Your task to perform on an android device: toggle data saver in the chrome app Image 0: 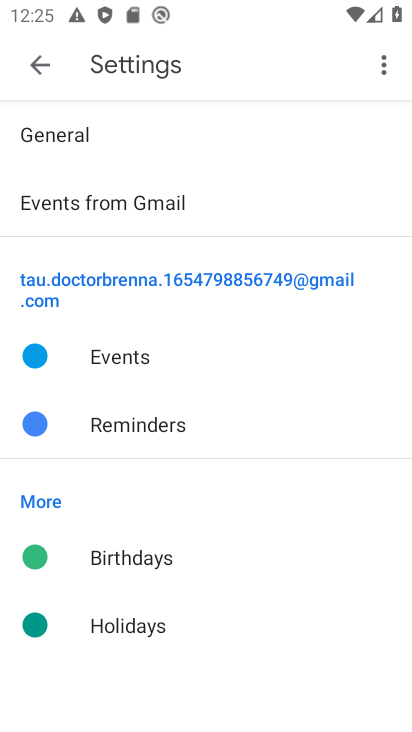
Step 0: press home button
Your task to perform on an android device: toggle data saver in the chrome app Image 1: 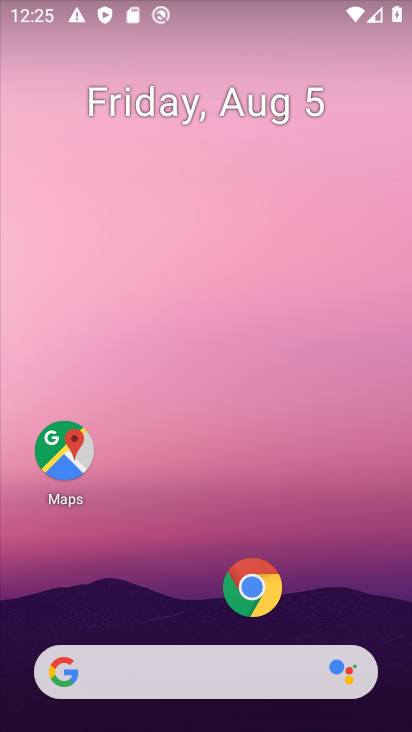
Step 1: click (274, 595)
Your task to perform on an android device: toggle data saver in the chrome app Image 2: 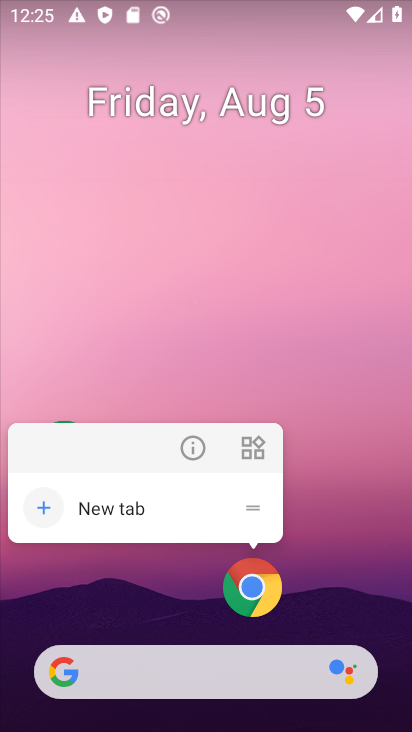
Step 2: click (274, 595)
Your task to perform on an android device: toggle data saver in the chrome app Image 3: 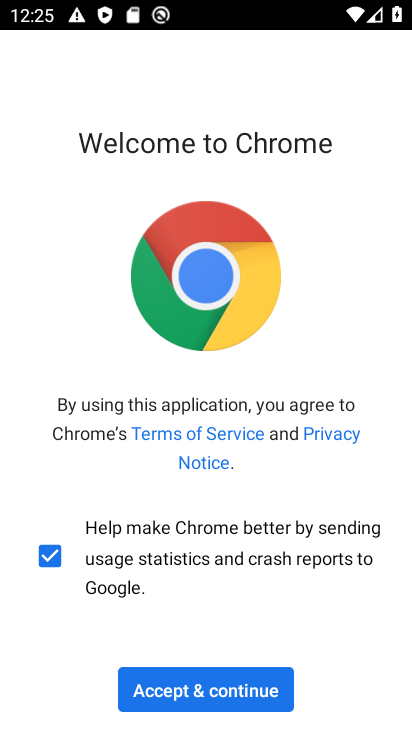
Step 3: click (225, 687)
Your task to perform on an android device: toggle data saver in the chrome app Image 4: 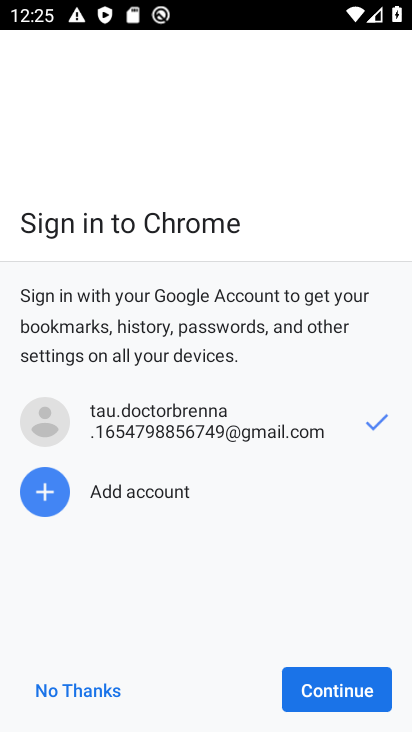
Step 4: click (338, 674)
Your task to perform on an android device: toggle data saver in the chrome app Image 5: 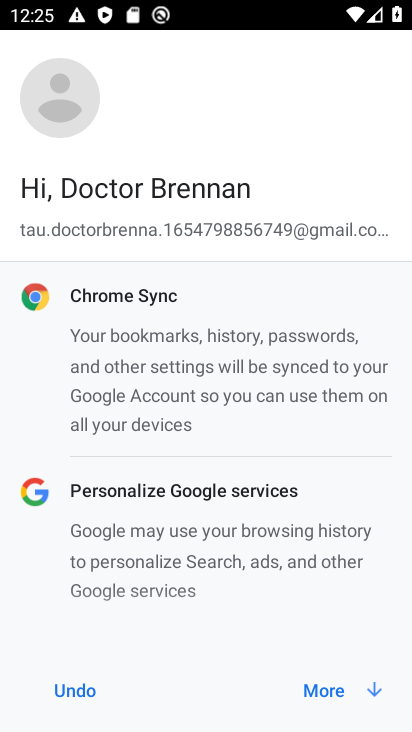
Step 5: click (338, 674)
Your task to perform on an android device: toggle data saver in the chrome app Image 6: 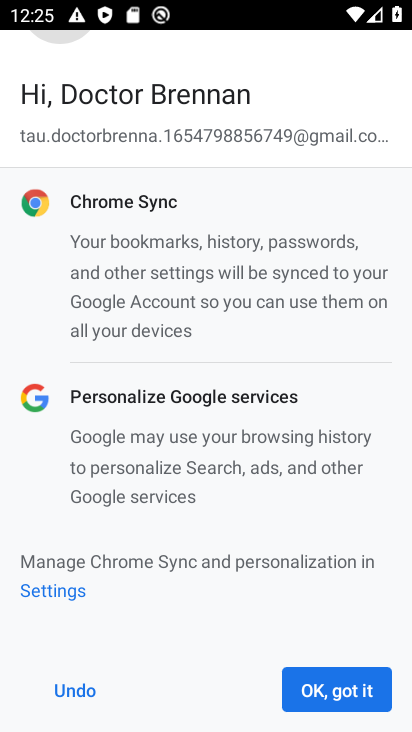
Step 6: click (338, 674)
Your task to perform on an android device: toggle data saver in the chrome app Image 7: 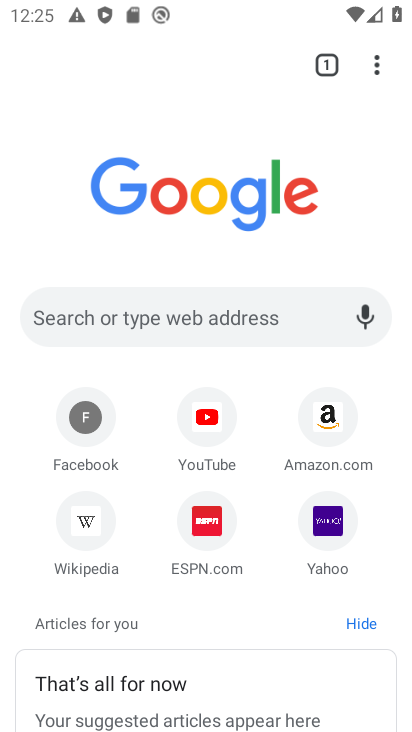
Step 7: click (376, 67)
Your task to perform on an android device: toggle data saver in the chrome app Image 8: 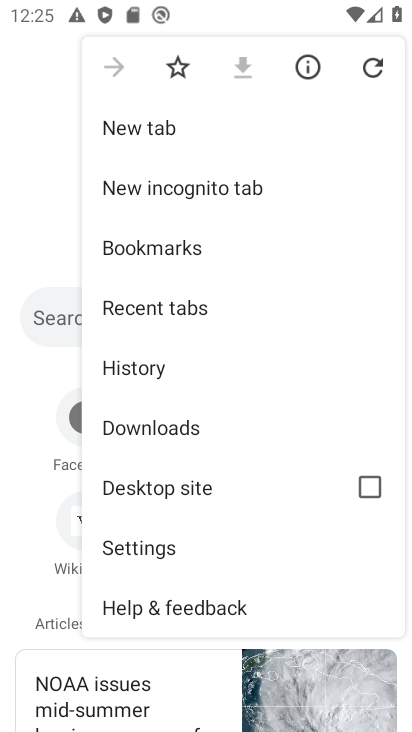
Step 8: click (188, 553)
Your task to perform on an android device: toggle data saver in the chrome app Image 9: 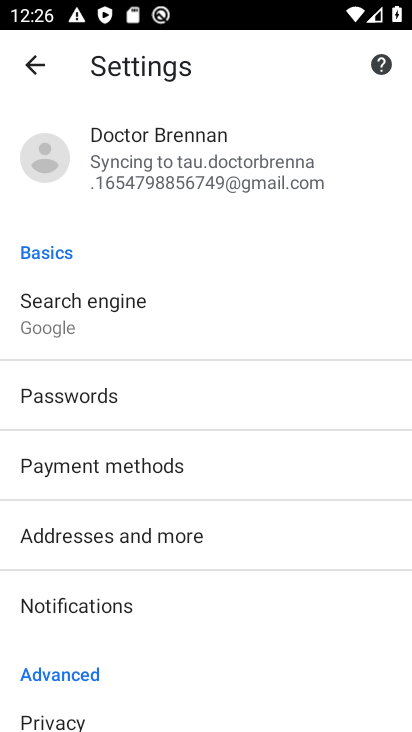
Step 9: drag from (221, 695) to (391, 14)
Your task to perform on an android device: toggle data saver in the chrome app Image 10: 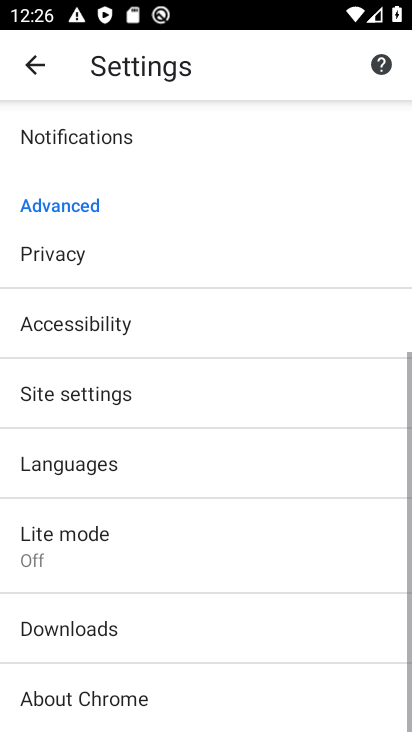
Step 10: drag from (162, 621) to (258, 57)
Your task to perform on an android device: toggle data saver in the chrome app Image 11: 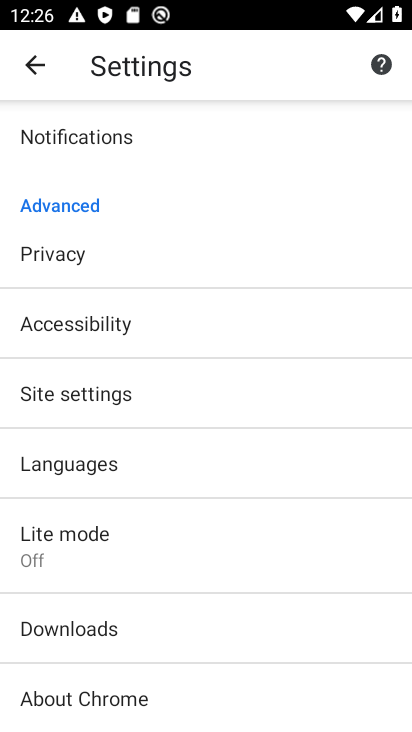
Step 11: click (119, 540)
Your task to perform on an android device: toggle data saver in the chrome app Image 12: 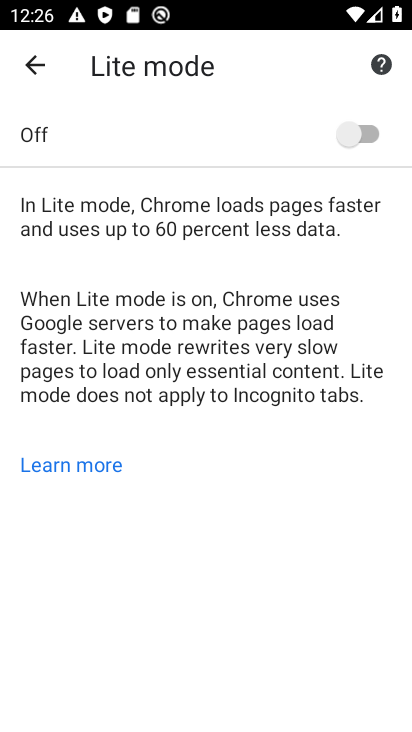
Step 12: click (372, 145)
Your task to perform on an android device: toggle data saver in the chrome app Image 13: 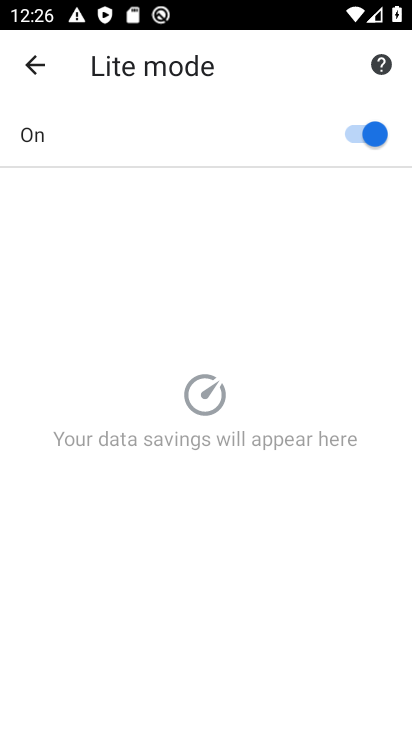
Step 13: task complete